Your task to perform on an android device: manage bookmarks in the chrome app Image 0: 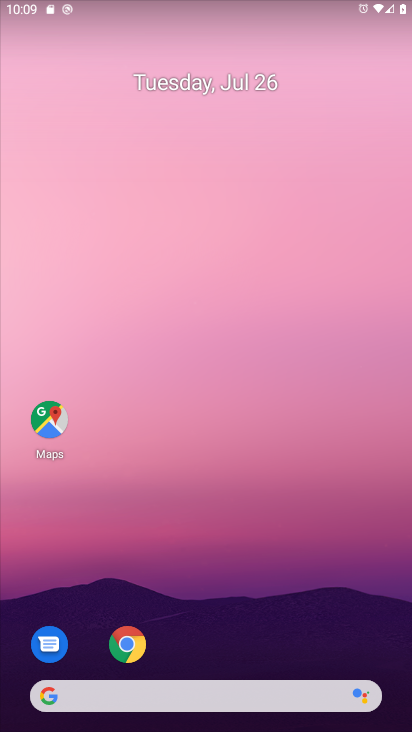
Step 0: click (137, 649)
Your task to perform on an android device: manage bookmarks in the chrome app Image 1: 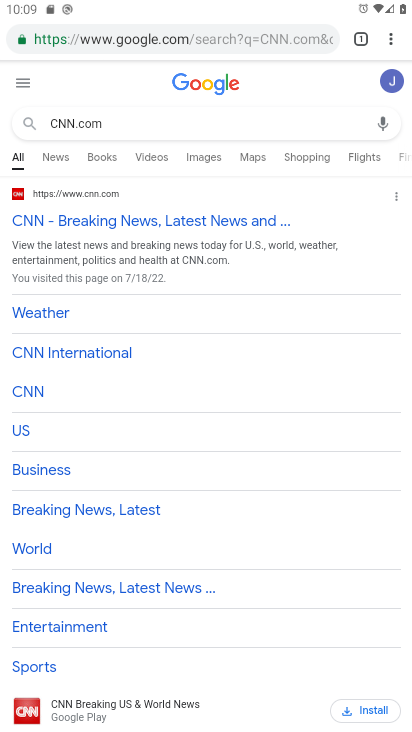
Step 1: click (390, 31)
Your task to perform on an android device: manage bookmarks in the chrome app Image 2: 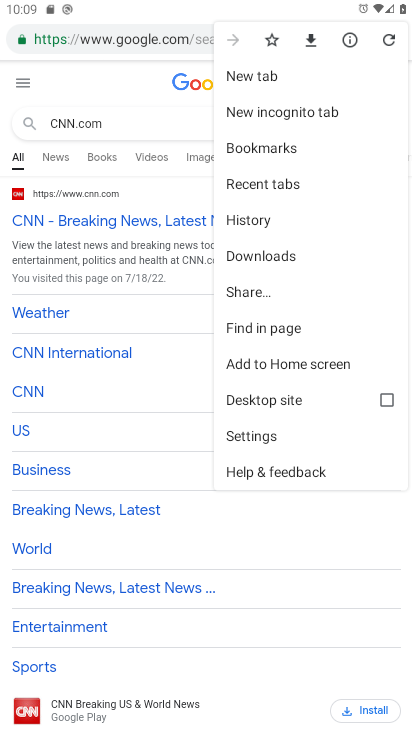
Step 2: click (260, 151)
Your task to perform on an android device: manage bookmarks in the chrome app Image 3: 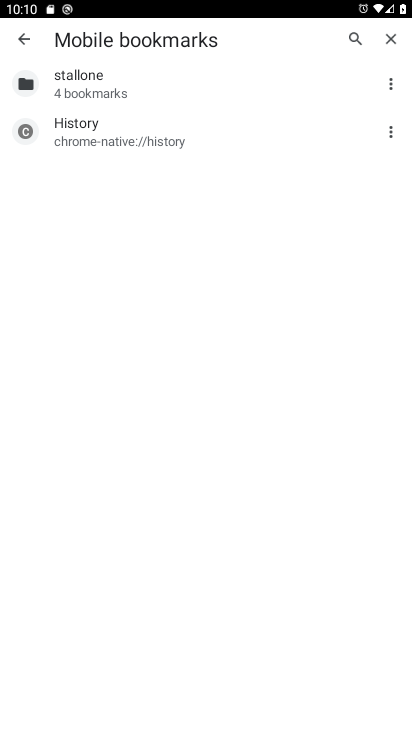
Step 3: click (120, 90)
Your task to perform on an android device: manage bookmarks in the chrome app Image 4: 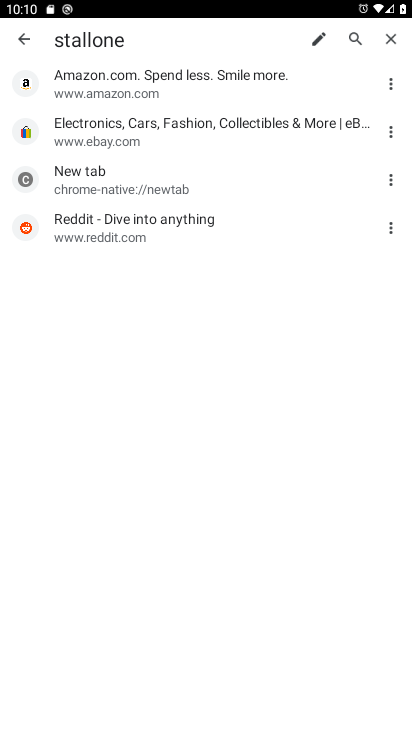
Step 4: click (322, 42)
Your task to perform on an android device: manage bookmarks in the chrome app Image 5: 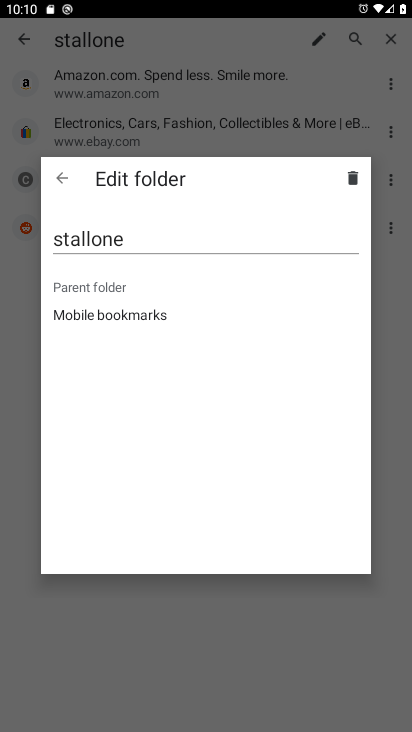
Step 5: click (148, 237)
Your task to perform on an android device: manage bookmarks in the chrome app Image 6: 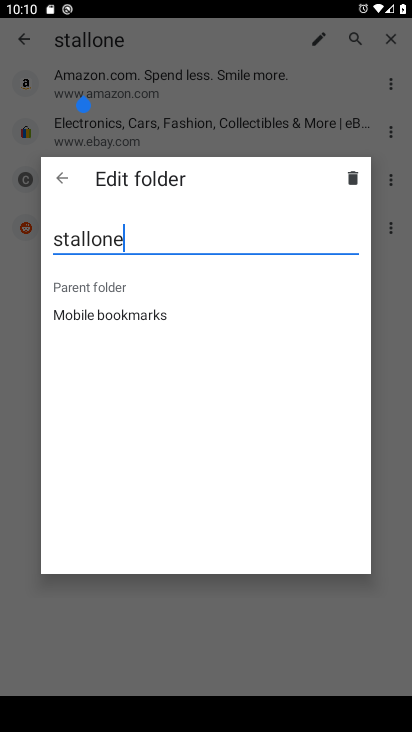
Step 6: click (91, 239)
Your task to perform on an android device: manage bookmarks in the chrome app Image 7: 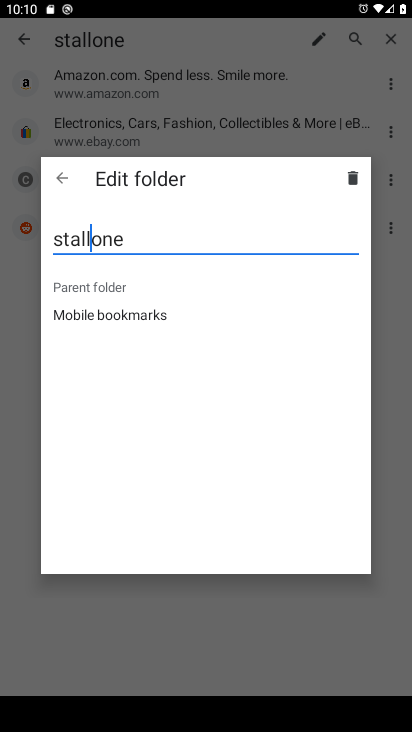
Step 7: type " on 1 "
Your task to perform on an android device: manage bookmarks in the chrome app Image 8: 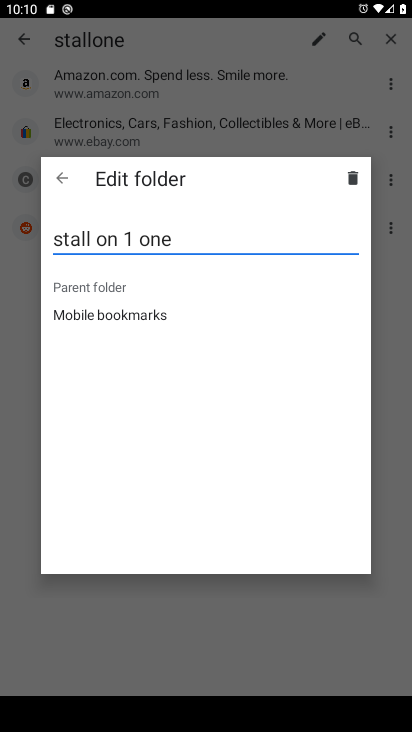
Step 8: click (64, 169)
Your task to perform on an android device: manage bookmarks in the chrome app Image 9: 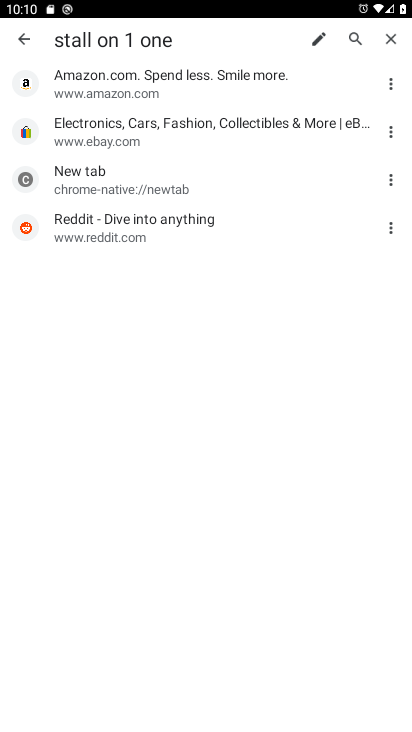
Step 9: task complete